Your task to perform on an android device: add a contact Image 0: 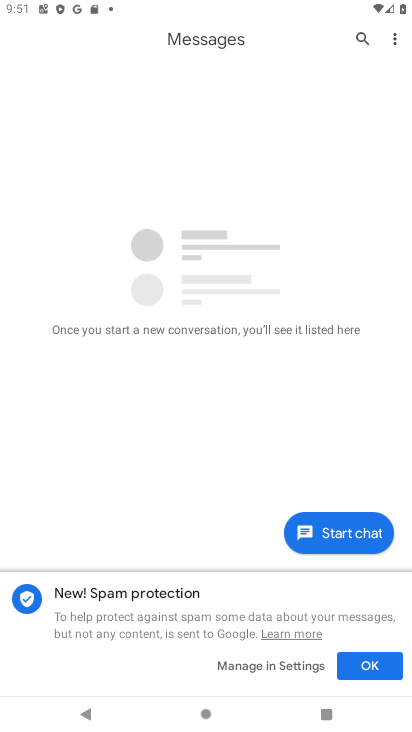
Step 0: press home button
Your task to perform on an android device: add a contact Image 1: 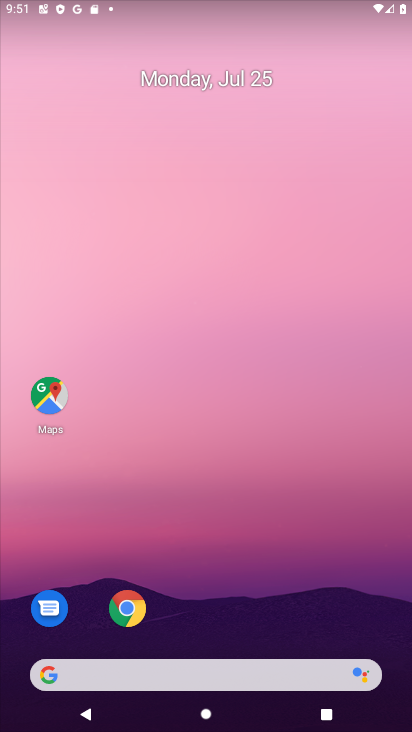
Step 1: drag from (220, 606) to (211, 206)
Your task to perform on an android device: add a contact Image 2: 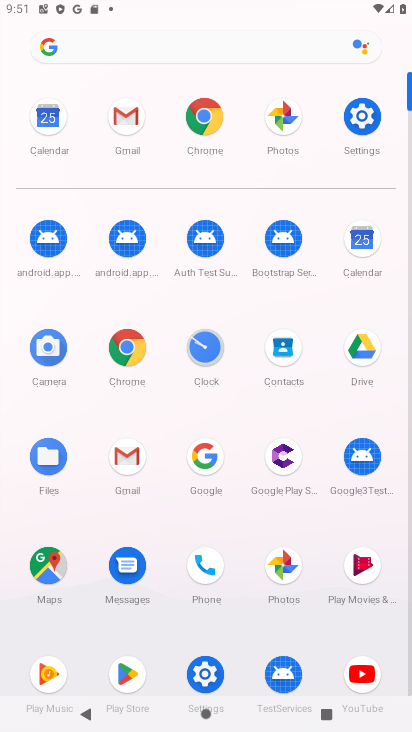
Step 2: click (205, 566)
Your task to perform on an android device: add a contact Image 3: 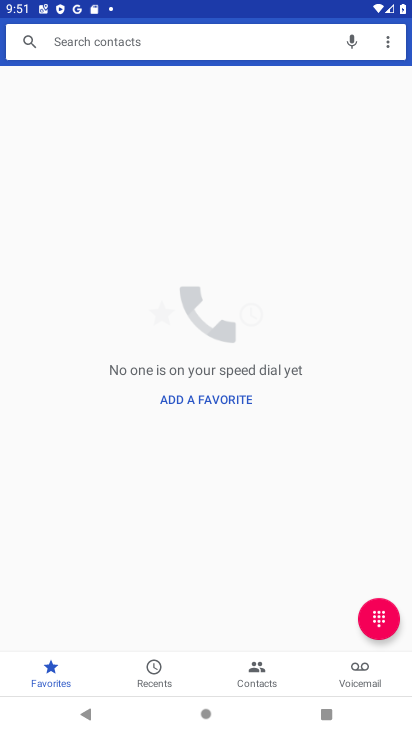
Step 3: click (183, 385)
Your task to perform on an android device: add a contact Image 4: 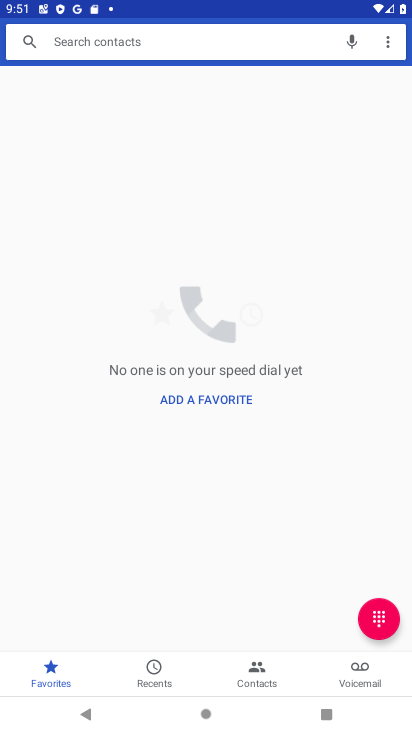
Step 4: click (182, 392)
Your task to perform on an android device: add a contact Image 5: 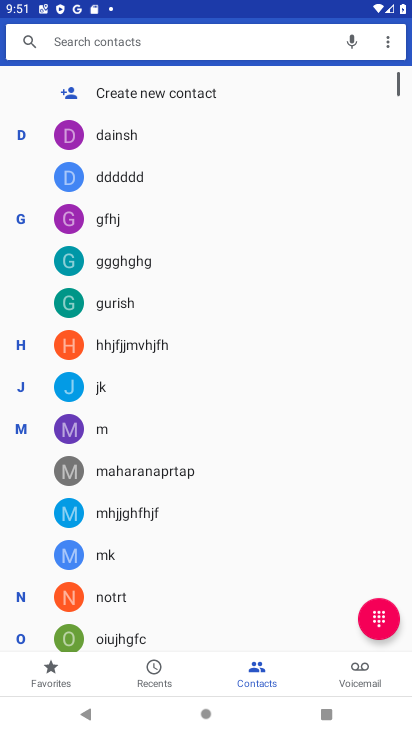
Step 5: click (129, 83)
Your task to perform on an android device: add a contact Image 6: 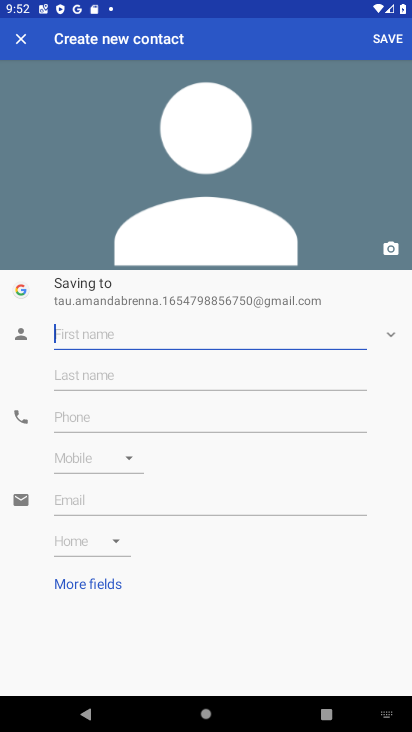
Step 6: type "ggggggggggggggg "
Your task to perform on an android device: add a contact Image 7: 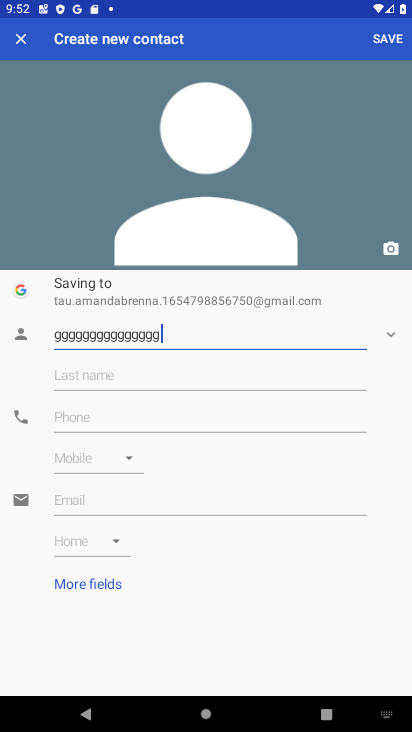
Step 7: click (164, 415)
Your task to perform on an android device: add a contact Image 8: 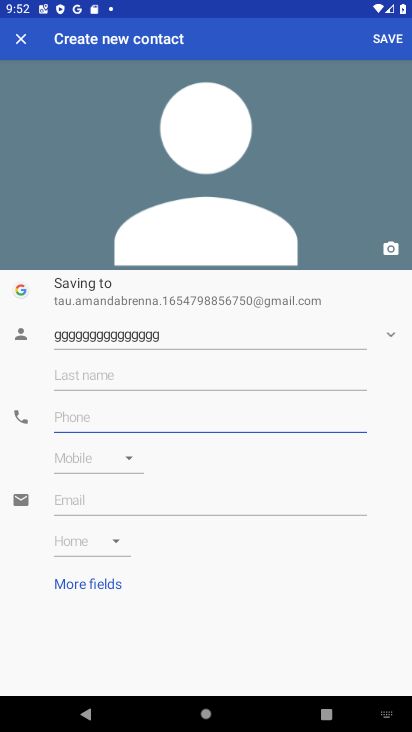
Step 8: type "777777777777777777 "
Your task to perform on an android device: add a contact Image 9: 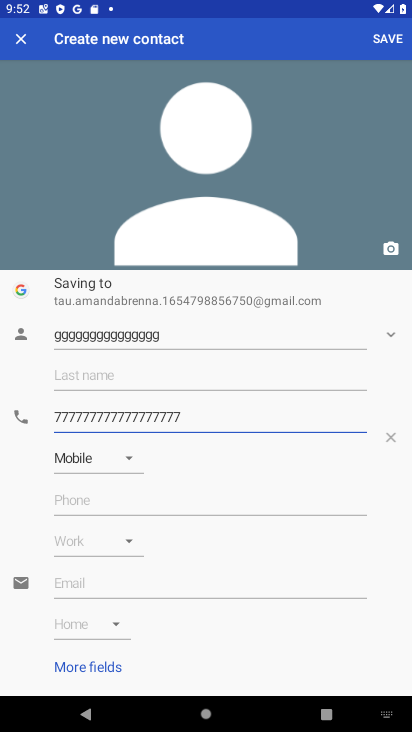
Step 9: click (388, 44)
Your task to perform on an android device: add a contact Image 10: 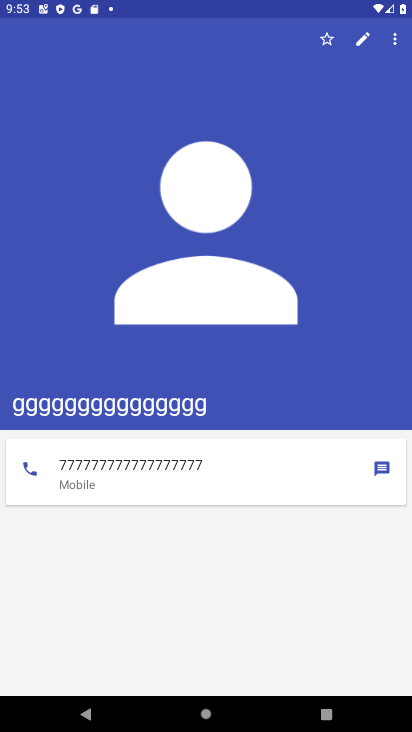
Step 10: task complete